Your task to perform on an android device: check battery use Image 0: 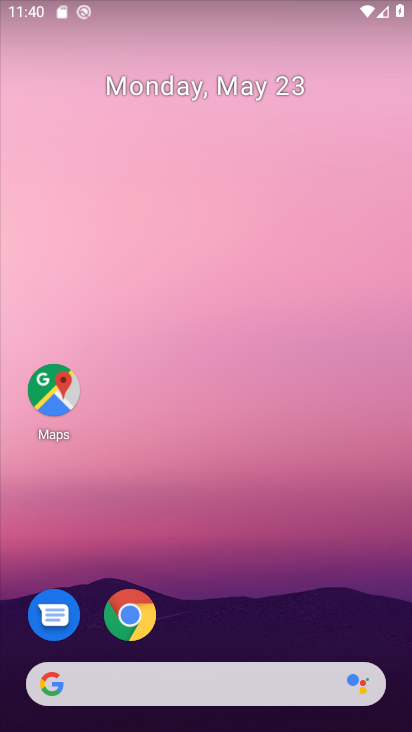
Step 0: drag from (262, 611) to (198, 168)
Your task to perform on an android device: check battery use Image 1: 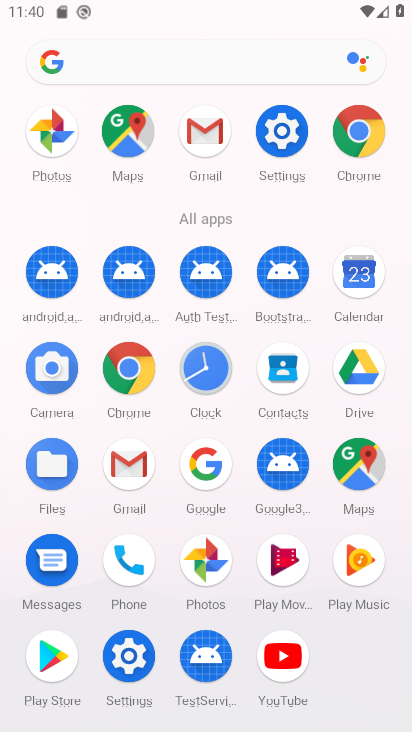
Step 1: click (283, 133)
Your task to perform on an android device: check battery use Image 2: 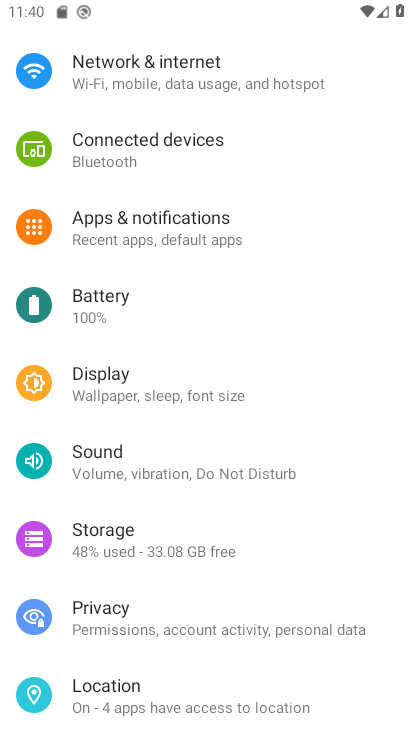
Step 2: click (101, 312)
Your task to perform on an android device: check battery use Image 3: 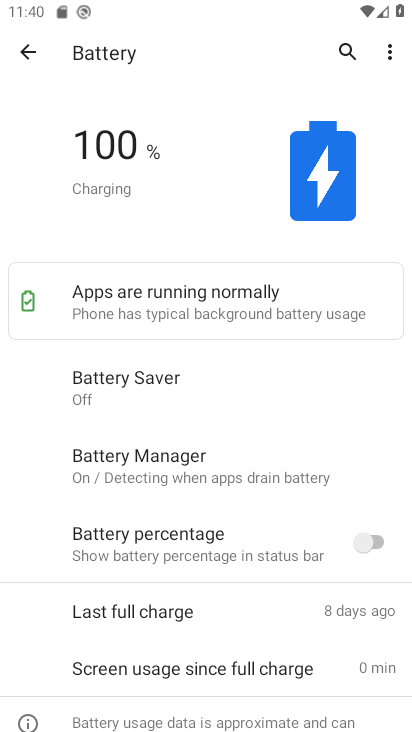
Step 3: click (389, 47)
Your task to perform on an android device: check battery use Image 4: 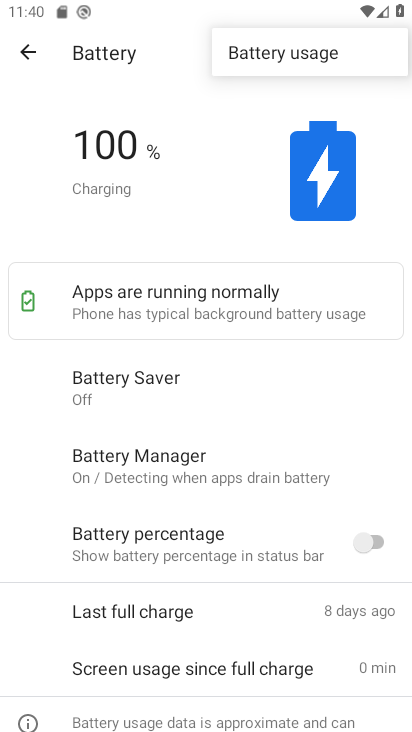
Step 4: click (312, 61)
Your task to perform on an android device: check battery use Image 5: 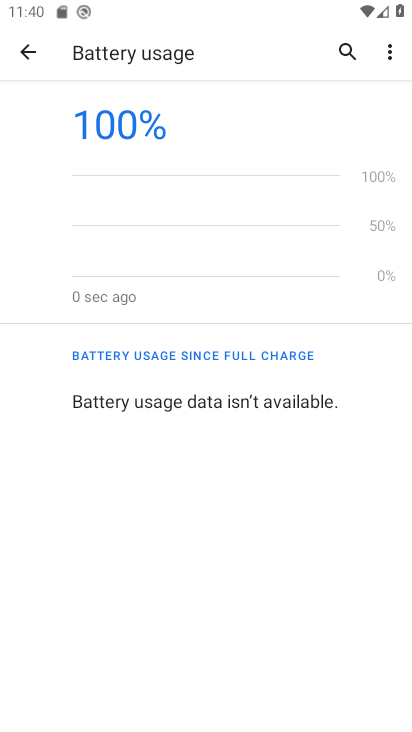
Step 5: task complete